Your task to perform on an android device: Open Chrome and go to settings Image 0: 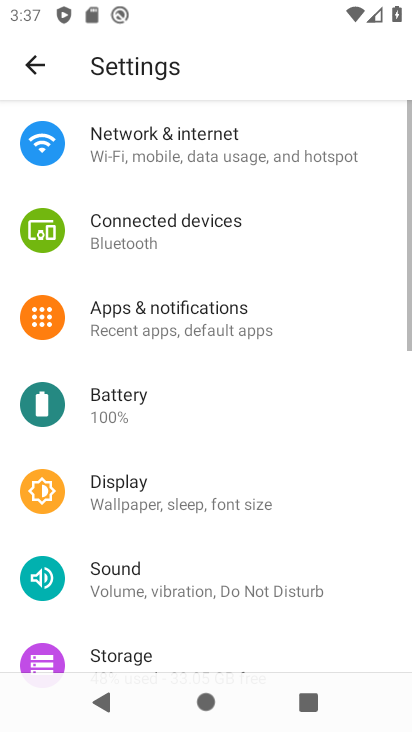
Step 0: press home button
Your task to perform on an android device: Open Chrome and go to settings Image 1: 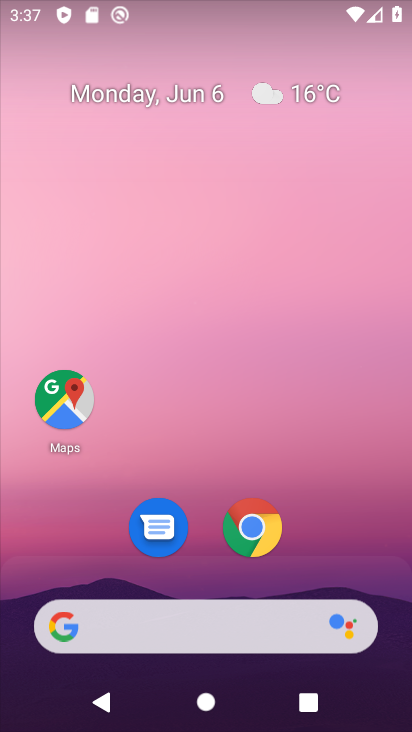
Step 1: click (264, 530)
Your task to perform on an android device: Open Chrome and go to settings Image 2: 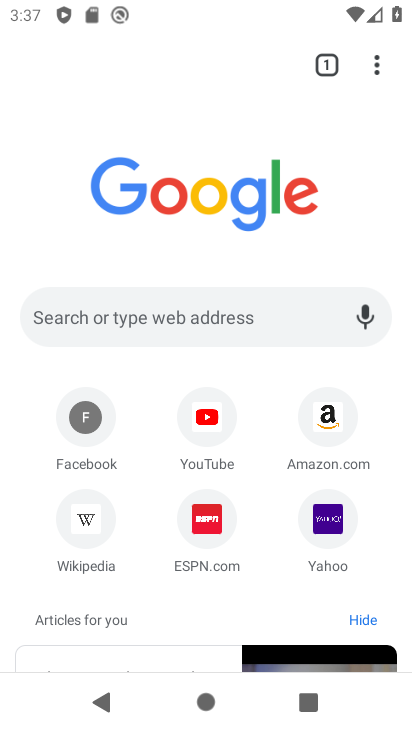
Step 2: click (371, 72)
Your task to perform on an android device: Open Chrome and go to settings Image 3: 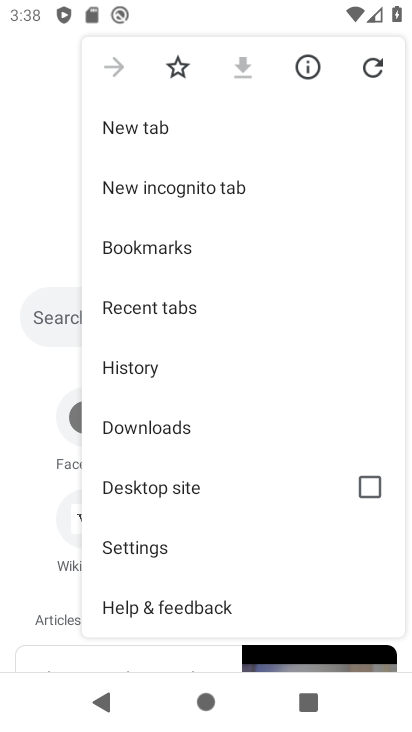
Step 3: click (159, 550)
Your task to perform on an android device: Open Chrome and go to settings Image 4: 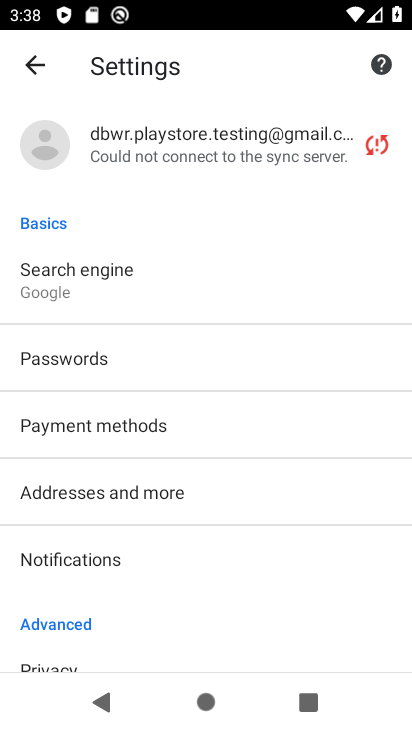
Step 4: task complete